Your task to perform on an android device: check data usage Image 0: 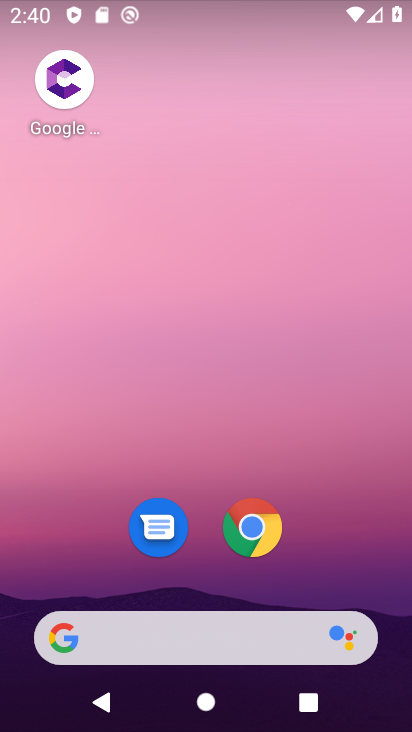
Step 0: drag from (324, 532) to (346, 170)
Your task to perform on an android device: check data usage Image 1: 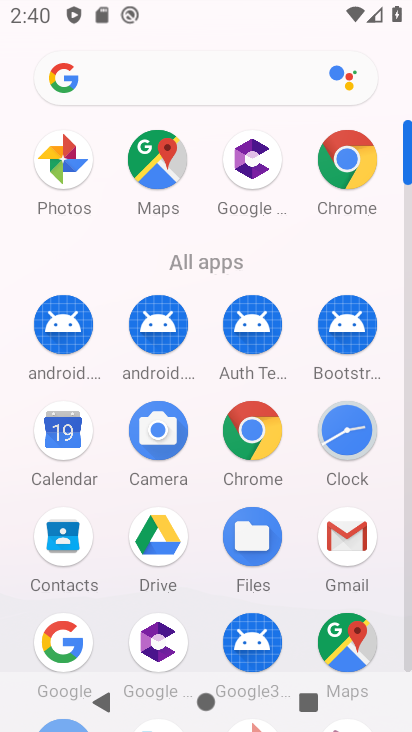
Step 1: drag from (204, 605) to (201, 268)
Your task to perform on an android device: check data usage Image 2: 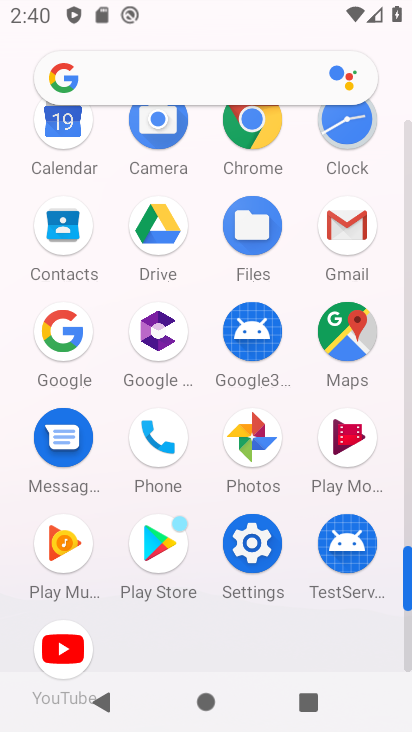
Step 2: click (256, 552)
Your task to perform on an android device: check data usage Image 3: 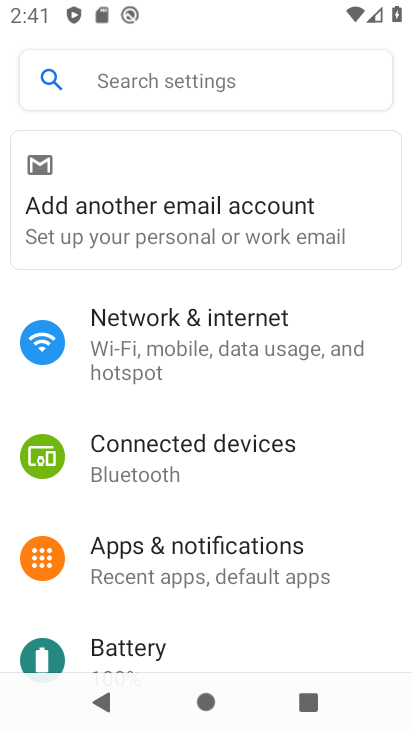
Step 3: click (221, 350)
Your task to perform on an android device: check data usage Image 4: 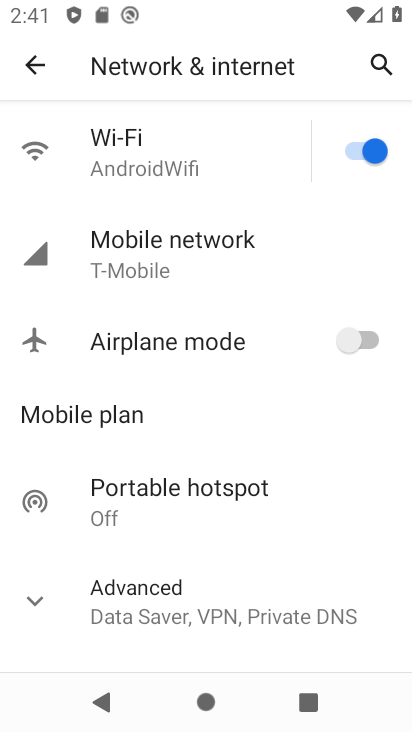
Step 4: click (184, 265)
Your task to perform on an android device: check data usage Image 5: 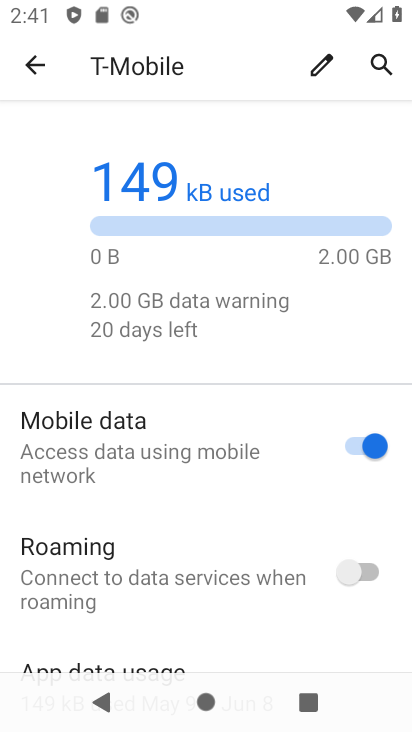
Step 5: task complete